Your task to perform on an android device: What is the news today? Image 0: 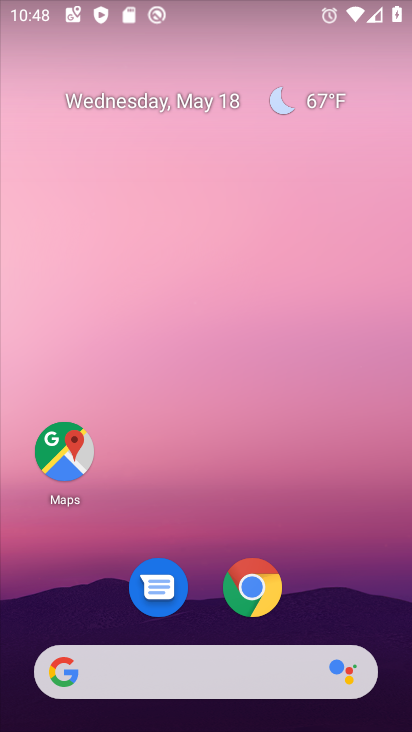
Step 0: click (139, 672)
Your task to perform on an android device: What is the news today? Image 1: 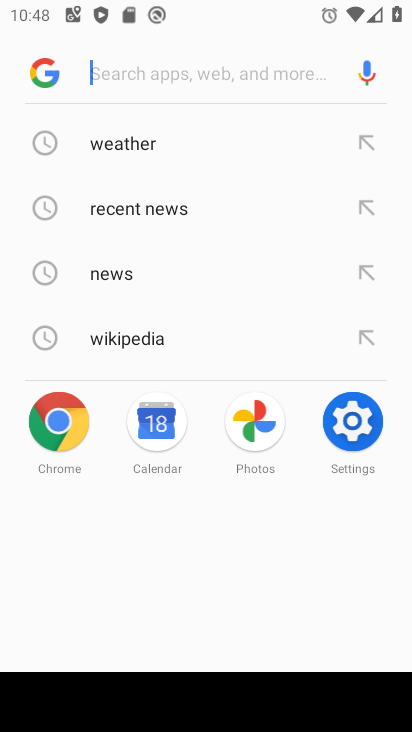
Step 1: click (87, 266)
Your task to perform on an android device: What is the news today? Image 2: 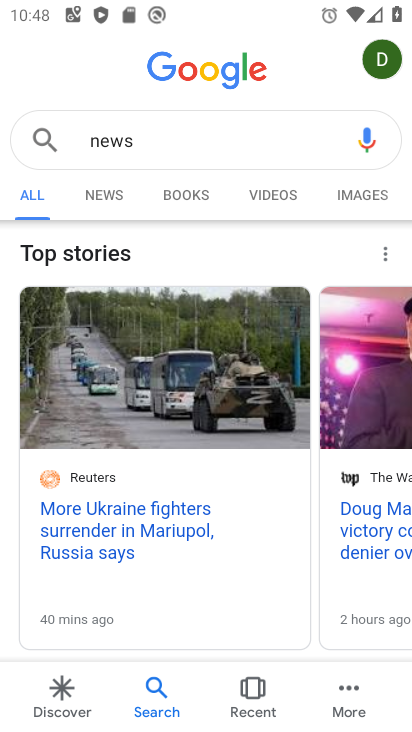
Step 2: click (144, 131)
Your task to perform on an android device: What is the news today? Image 3: 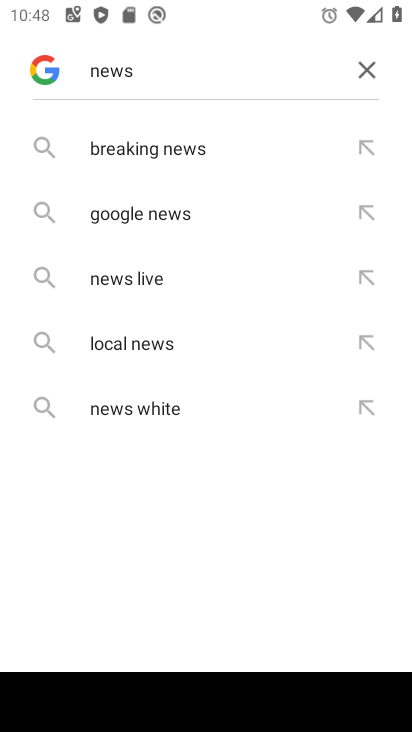
Step 3: click (360, 70)
Your task to perform on an android device: What is the news today? Image 4: 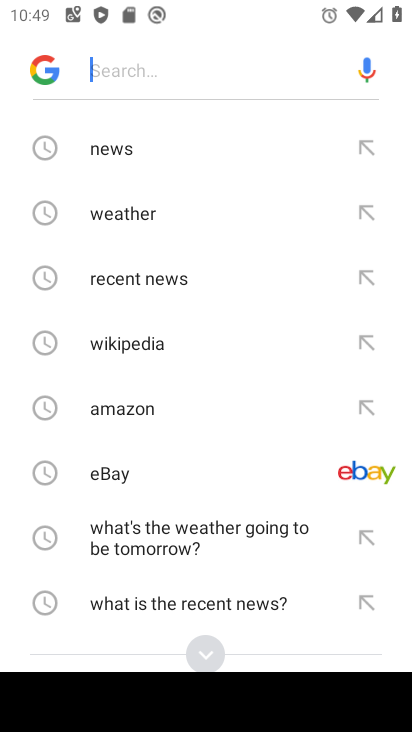
Step 4: type "news today"
Your task to perform on an android device: What is the news today? Image 5: 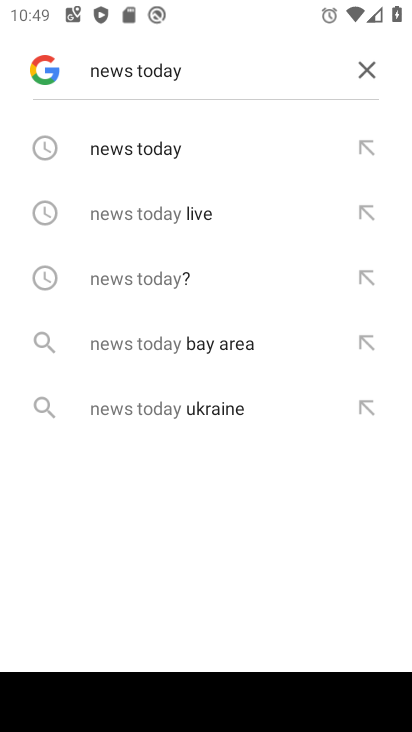
Step 5: click (301, 144)
Your task to perform on an android device: What is the news today? Image 6: 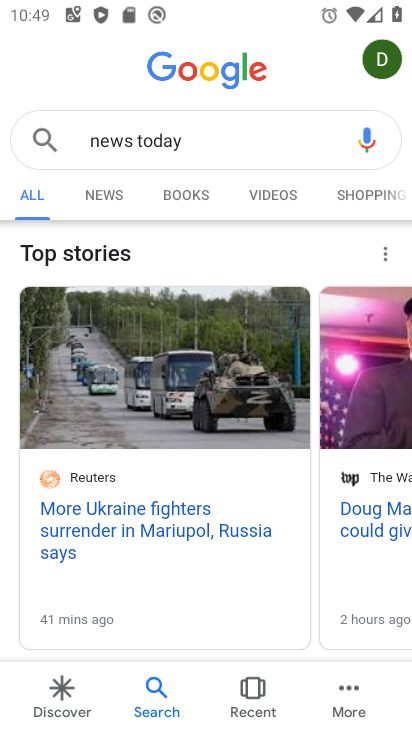
Step 6: task complete